Your task to perform on an android device: Open Google Maps Image 0: 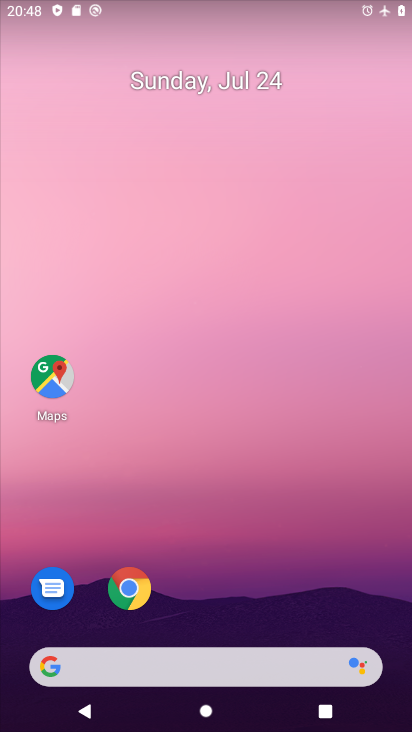
Step 0: click (67, 378)
Your task to perform on an android device: Open Google Maps Image 1: 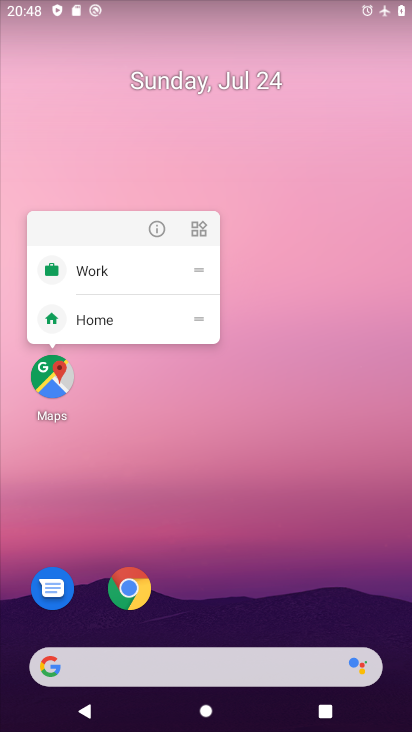
Step 1: click (55, 382)
Your task to perform on an android device: Open Google Maps Image 2: 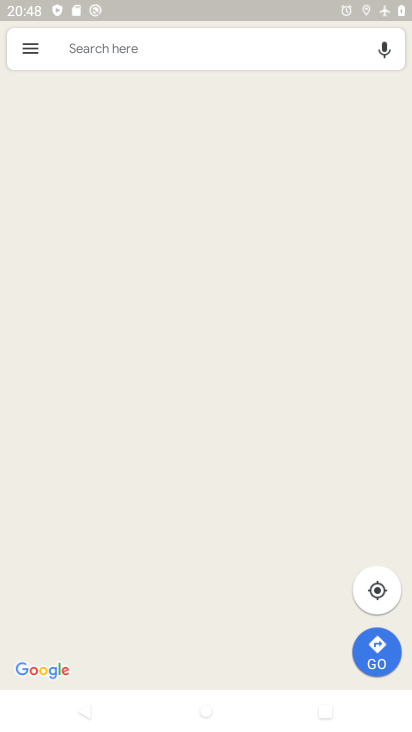
Step 2: task complete